Your task to perform on an android device: Add asus zenbook to the cart on bestbuy.com Image 0: 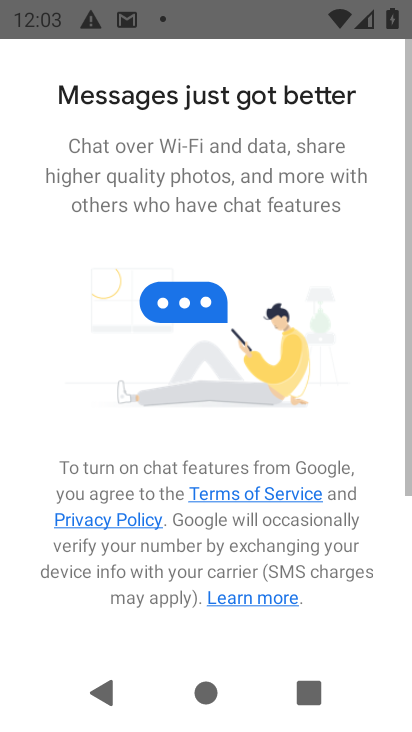
Step 0: press home button
Your task to perform on an android device: Add asus zenbook to the cart on bestbuy.com Image 1: 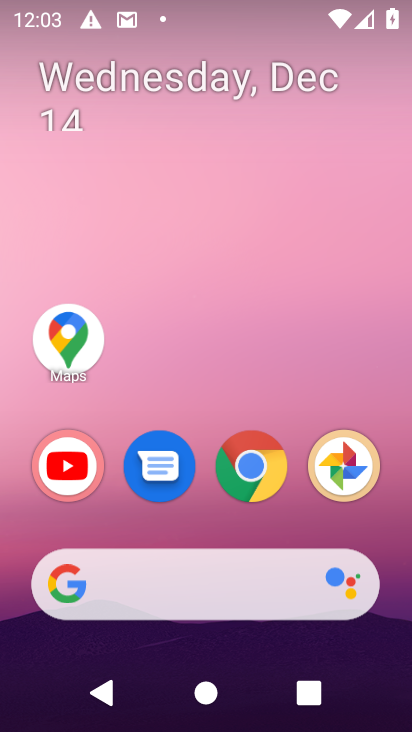
Step 1: press home button
Your task to perform on an android device: Add asus zenbook to the cart on bestbuy.com Image 2: 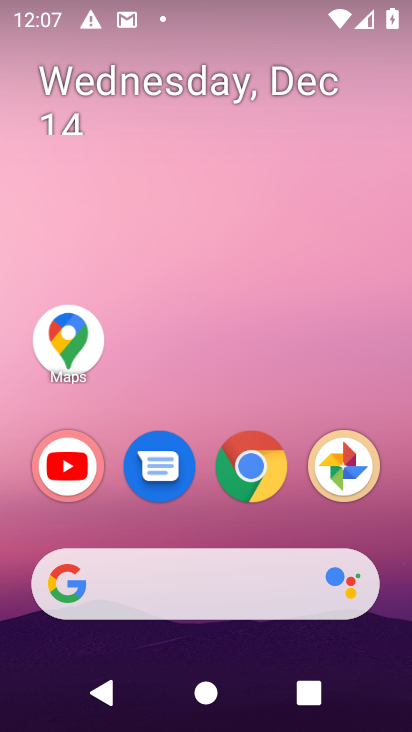
Step 2: click (180, 615)
Your task to perform on an android device: Add asus zenbook to the cart on bestbuy.com Image 3: 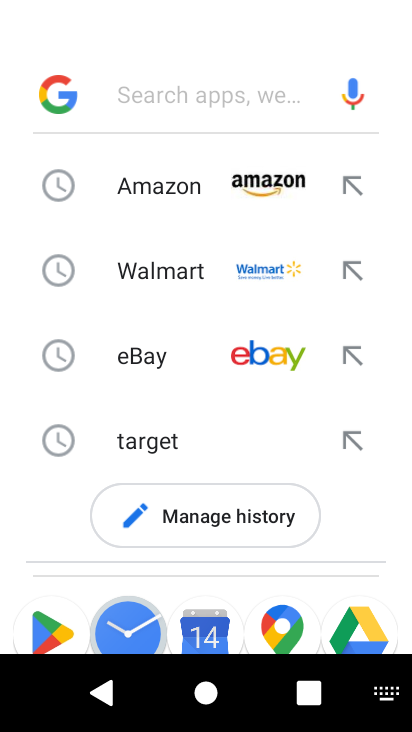
Step 3: type "bestbuy.com"
Your task to perform on an android device: Add asus zenbook to the cart on bestbuy.com Image 4: 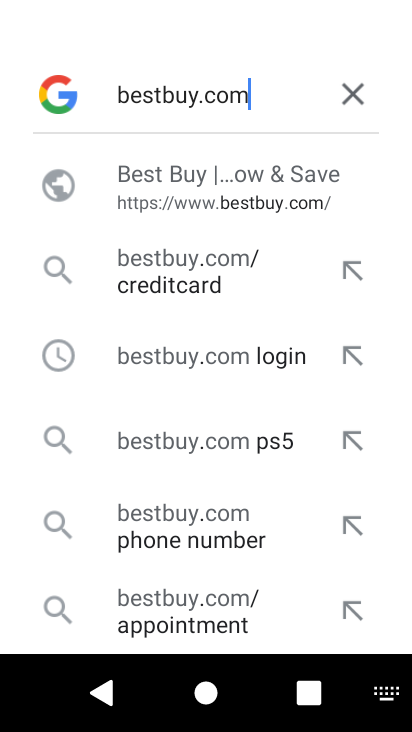
Step 4: click (200, 190)
Your task to perform on an android device: Add asus zenbook to the cart on bestbuy.com Image 5: 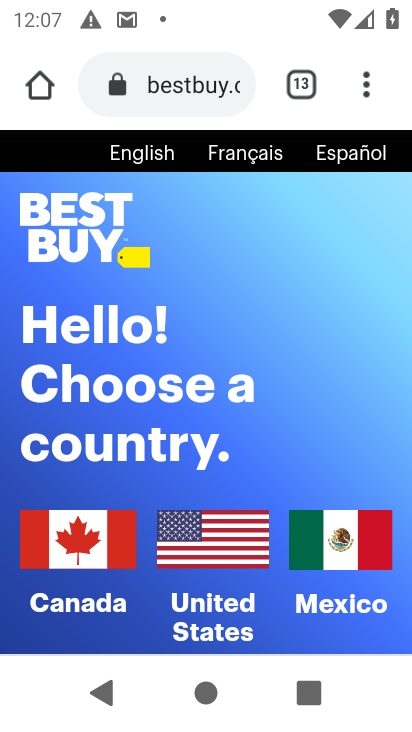
Step 5: click (203, 542)
Your task to perform on an android device: Add asus zenbook to the cart on bestbuy.com Image 6: 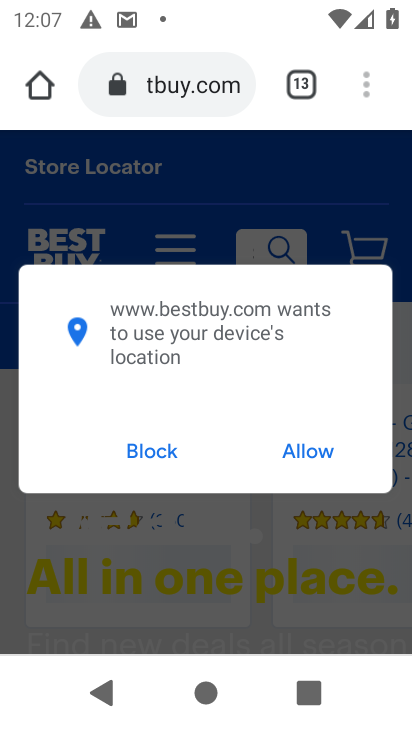
Step 6: click (159, 439)
Your task to perform on an android device: Add asus zenbook to the cart on bestbuy.com Image 7: 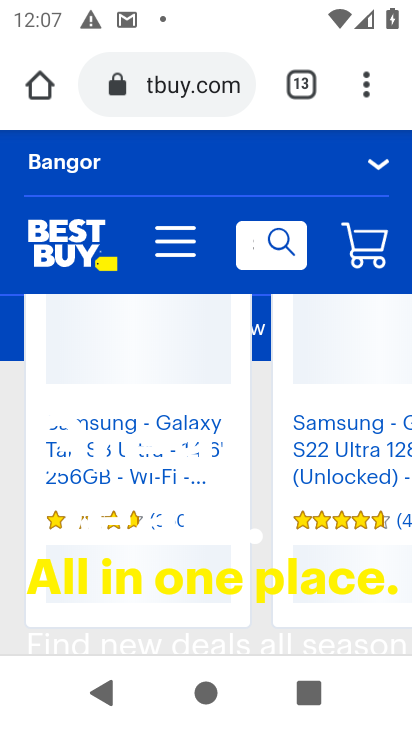
Step 7: click (281, 233)
Your task to perform on an android device: Add asus zenbook to the cart on bestbuy.com Image 8: 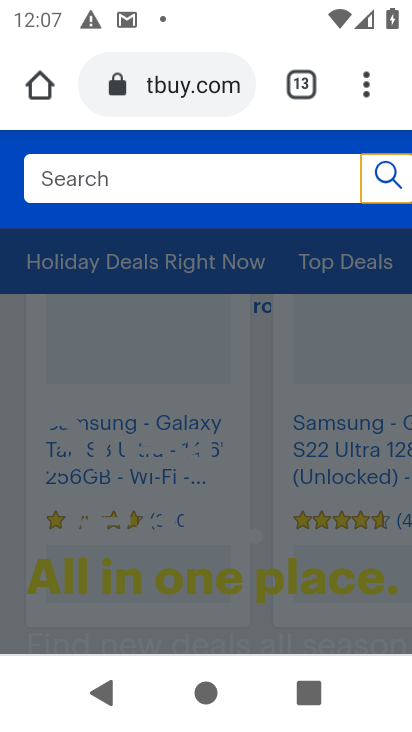
Step 8: click (216, 170)
Your task to perform on an android device: Add asus zenbook to the cart on bestbuy.com Image 9: 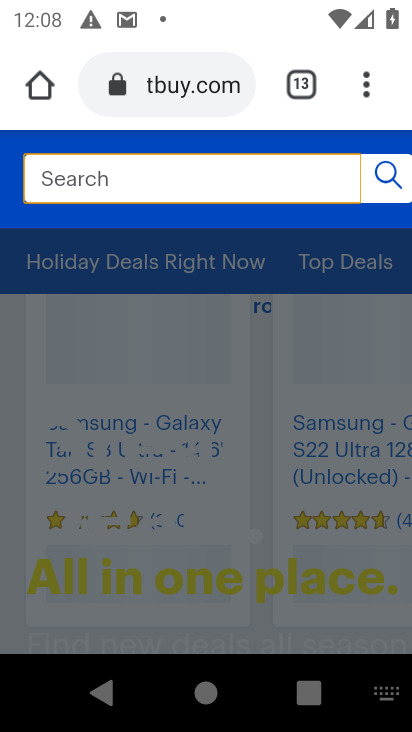
Step 9: type "asus zenbook "
Your task to perform on an android device: Add asus zenbook to the cart on bestbuy.com Image 10: 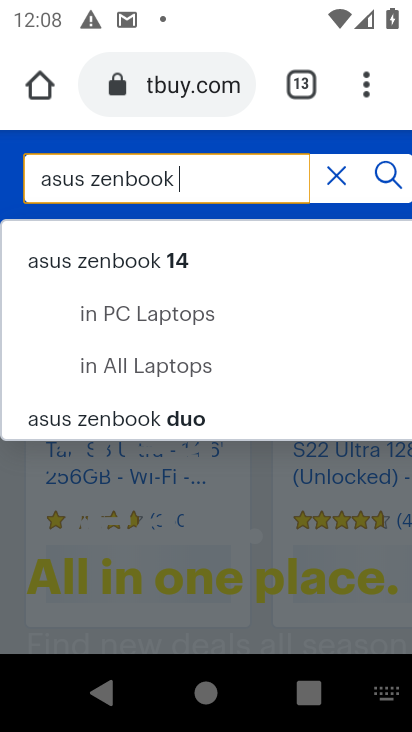
Step 10: click (388, 171)
Your task to perform on an android device: Add asus zenbook to the cart on bestbuy.com Image 11: 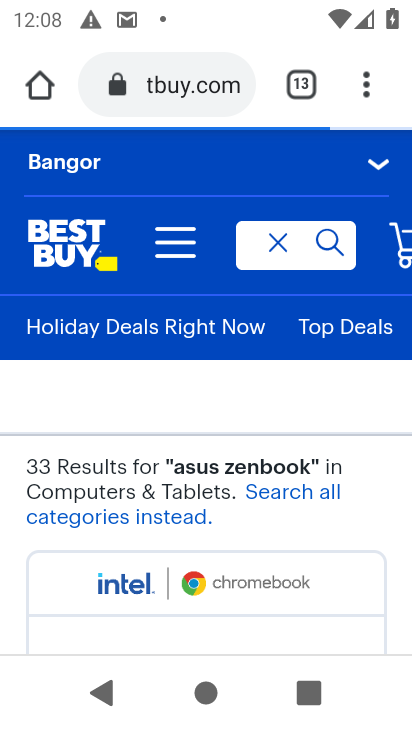
Step 11: drag from (279, 482) to (274, 234)
Your task to perform on an android device: Add asus zenbook to the cart on bestbuy.com Image 12: 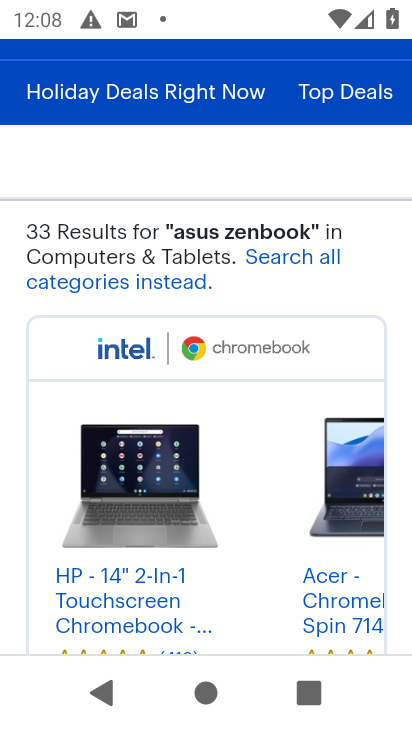
Step 12: drag from (261, 344) to (256, 229)
Your task to perform on an android device: Add asus zenbook to the cart on bestbuy.com Image 13: 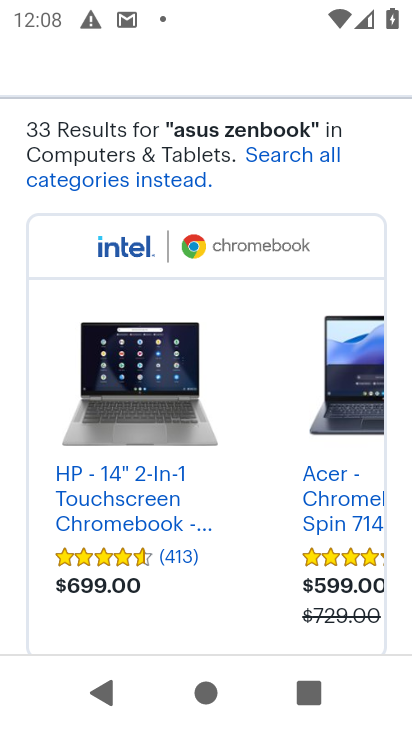
Step 13: drag from (246, 602) to (276, 134)
Your task to perform on an android device: Add asus zenbook to the cart on bestbuy.com Image 14: 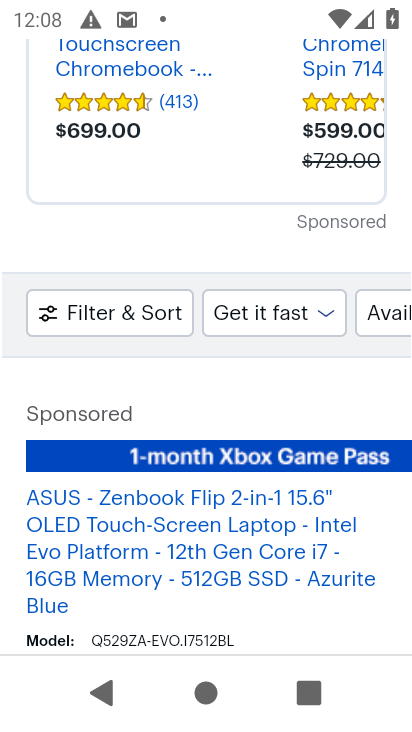
Step 14: drag from (229, 485) to (229, 239)
Your task to perform on an android device: Add asus zenbook to the cart on bestbuy.com Image 15: 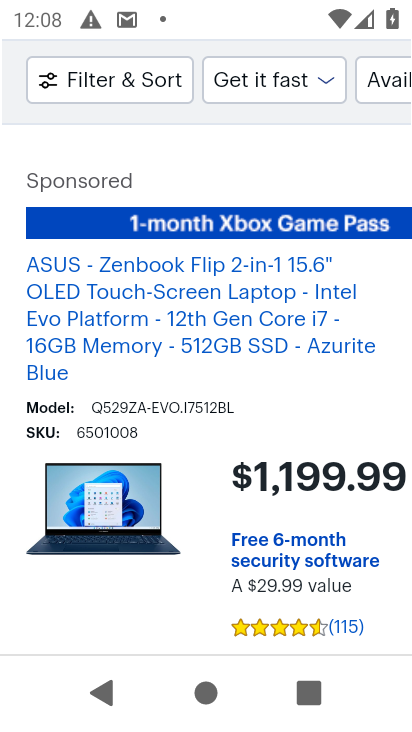
Step 15: drag from (272, 386) to (273, 249)
Your task to perform on an android device: Add asus zenbook to the cart on bestbuy.com Image 16: 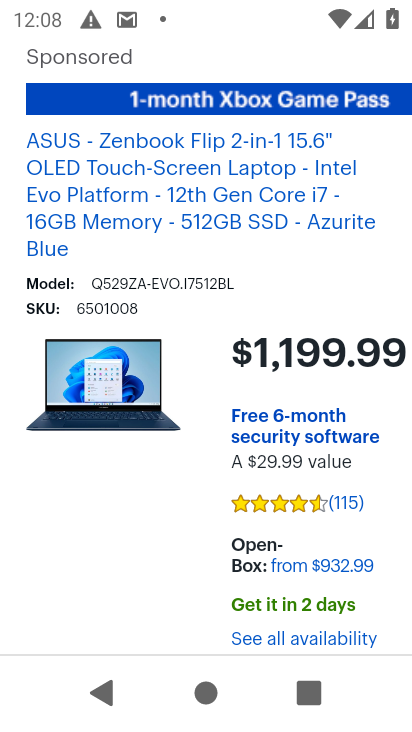
Step 16: drag from (282, 527) to (288, 292)
Your task to perform on an android device: Add asus zenbook to the cart on bestbuy.com Image 17: 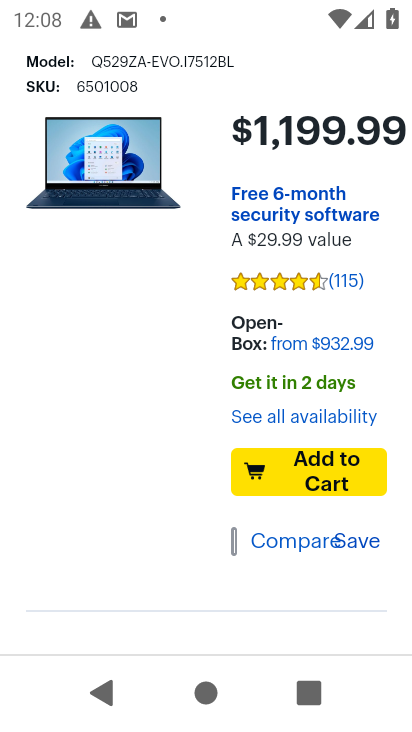
Step 17: click (298, 460)
Your task to perform on an android device: Add asus zenbook to the cart on bestbuy.com Image 18: 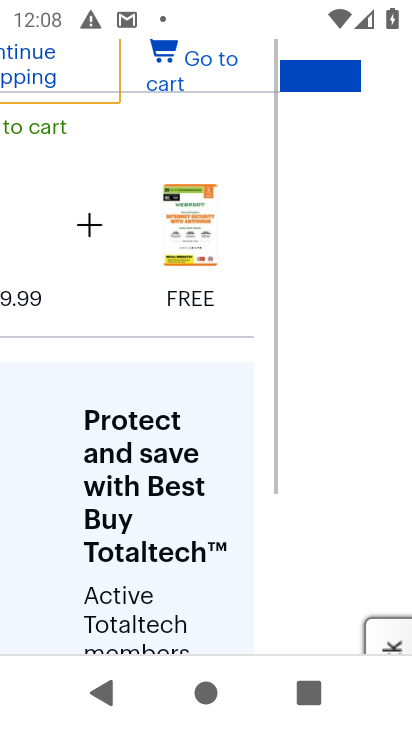
Step 18: task complete